Your task to perform on an android device: Open sound settings Image 0: 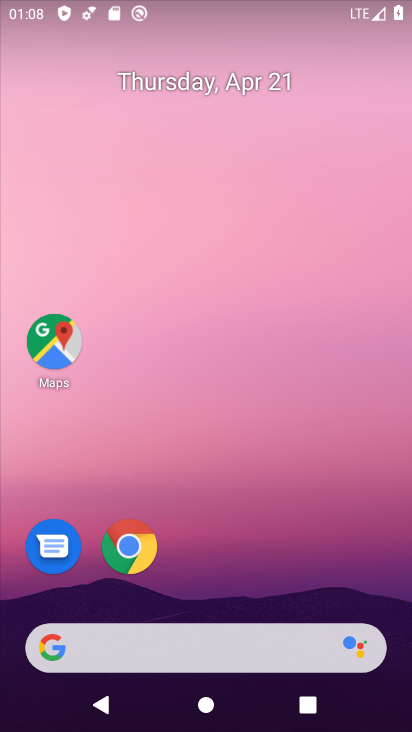
Step 0: drag from (224, 573) to (261, 134)
Your task to perform on an android device: Open sound settings Image 1: 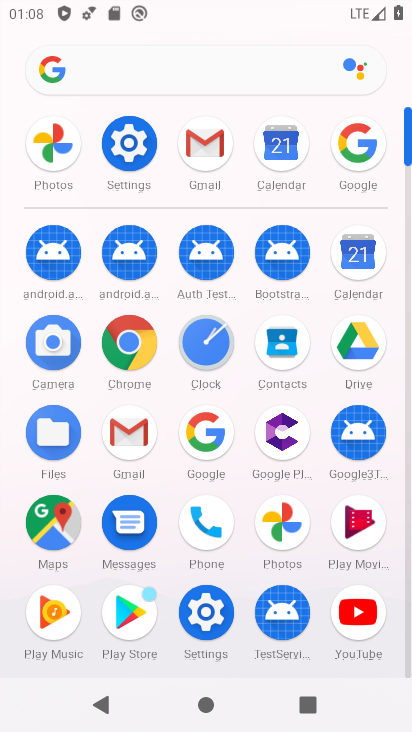
Step 1: click (205, 617)
Your task to perform on an android device: Open sound settings Image 2: 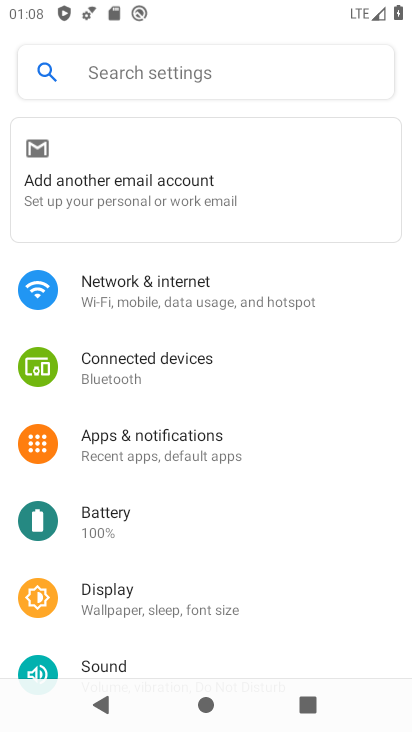
Step 2: click (109, 671)
Your task to perform on an android device: Open sound settings Image 3: 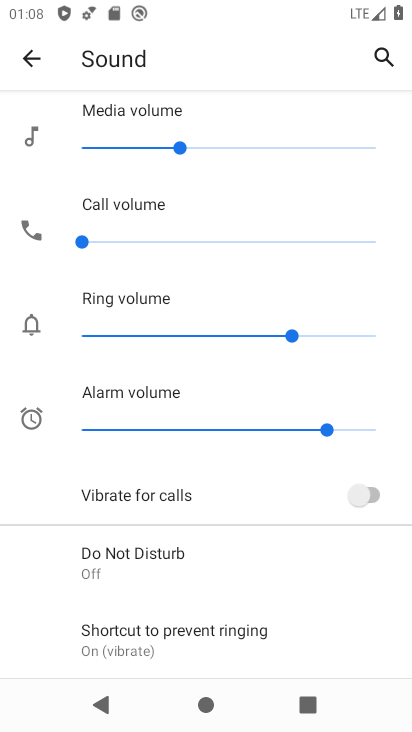
Step 3: task complete